Your task to perform on an android device: Go to settings Image 0: 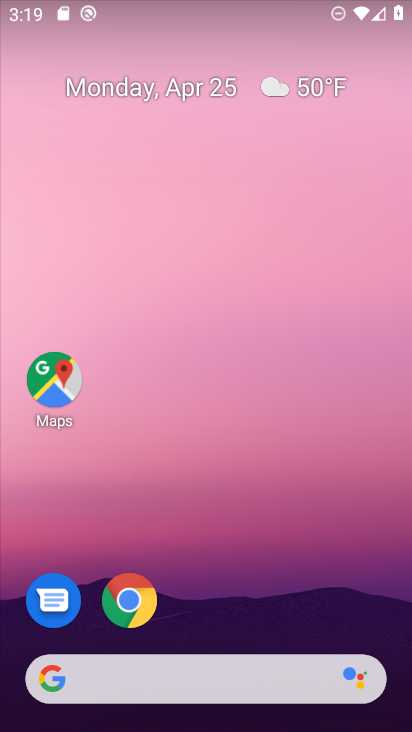
Step 0: drag from (214, 640) to (186, 6)
Your task to perform on an android device: Go to settings Image 1: 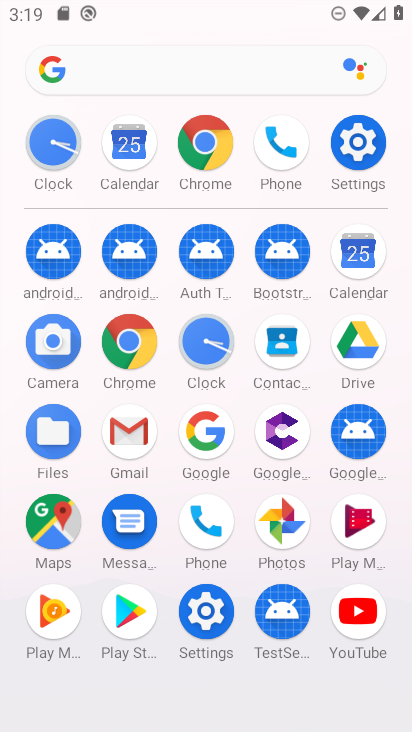
Step 1: click (362, 134)
Your task to perform on an android device: Go to settings Image 2: 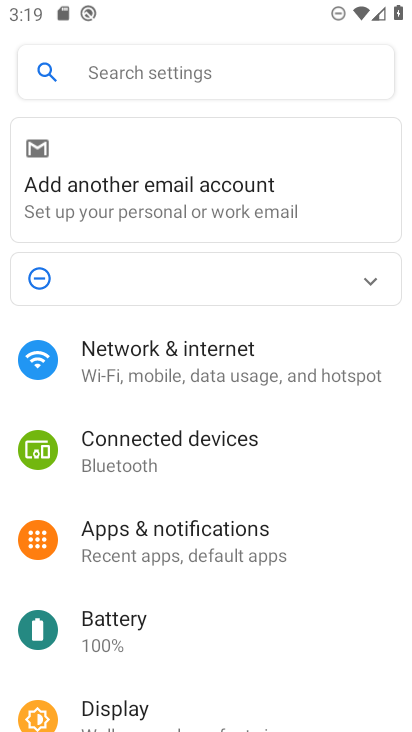
Step 2: task complete